Your task to perform on an android device: change timer sound Image 0: 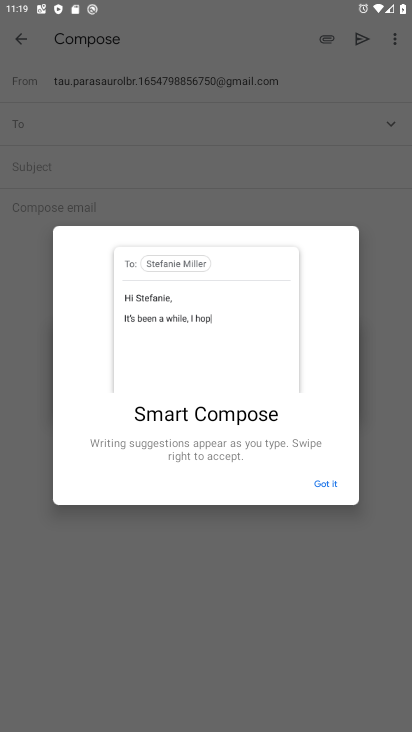
Step 0: press home button
Your task to perform on an android device: change timer sound Image 1: 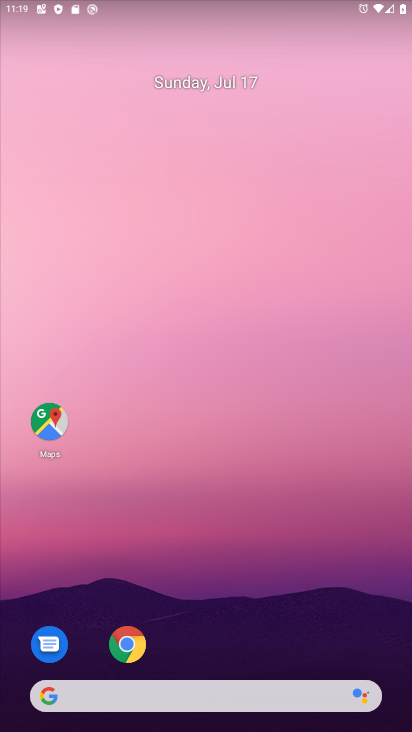
Step 1: drag from (328, 665) to (346, 87)
Your task to perform on an android device: change timer sound Image 2: 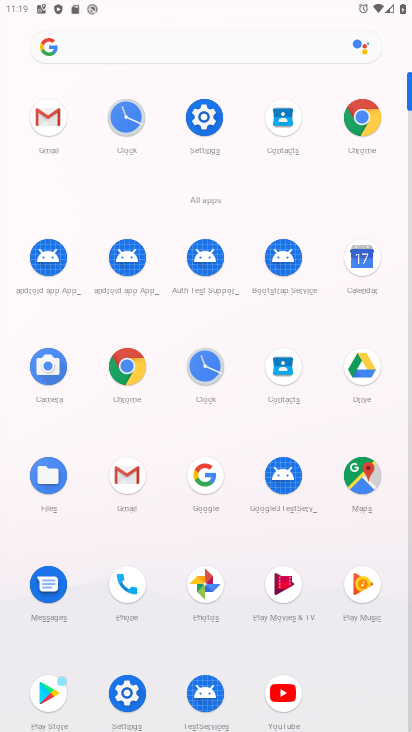
Step 2: click (197, 109)
Your task to perform on an android device: change timer sound Image 3: 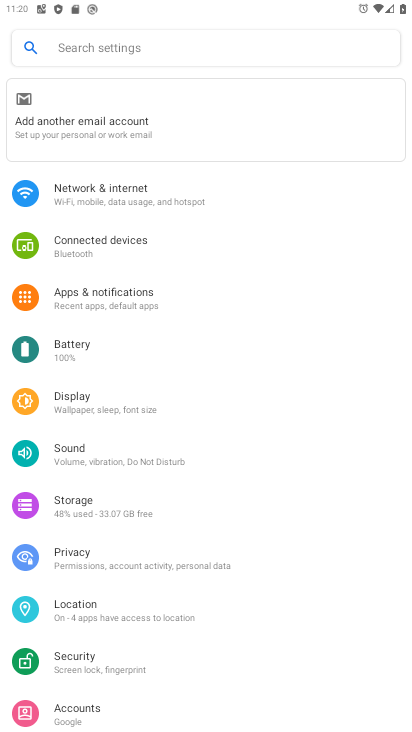
Step 3: press home button
Your task to perform on an android device: change timer sound Image 4: 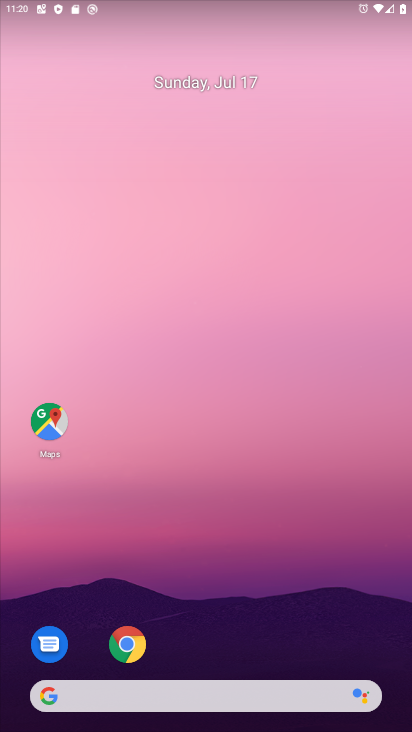
Step 4: drag from (274, 591) to (277, 106)
Your task to perform on an android device: change timer sound Image 5: 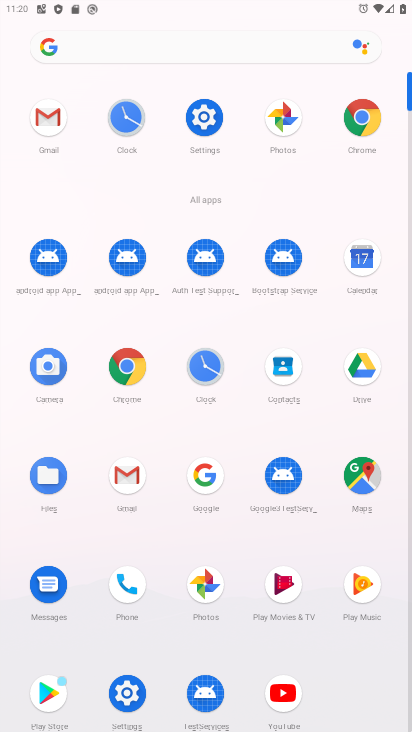
Step 5: click (197, 361)
Your task to perform on an android device: change timer sound Image 6: 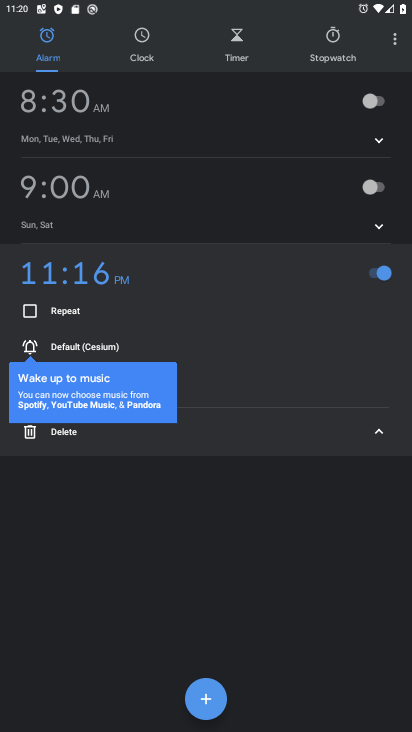
Step 6: click (397, 47)
Your task to perform on an android device: change timer sound Image 7: 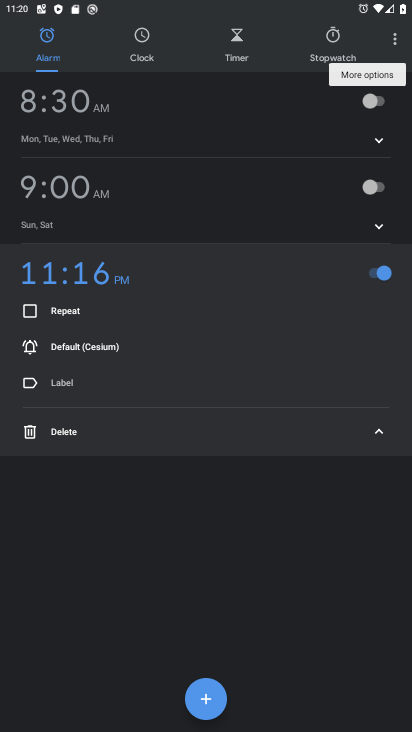
Step 7: click (397, 38)
Your task to perform on an android device: change timer sound Image 8: 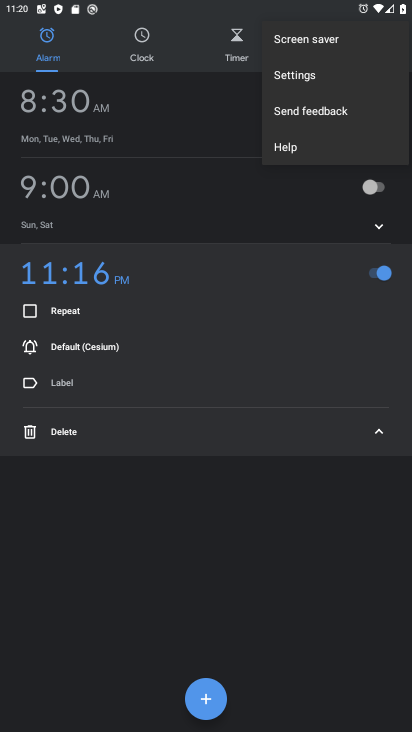
Step 8: click (288, 75)
Your task to perform on an android device: change timer sound Image 9: 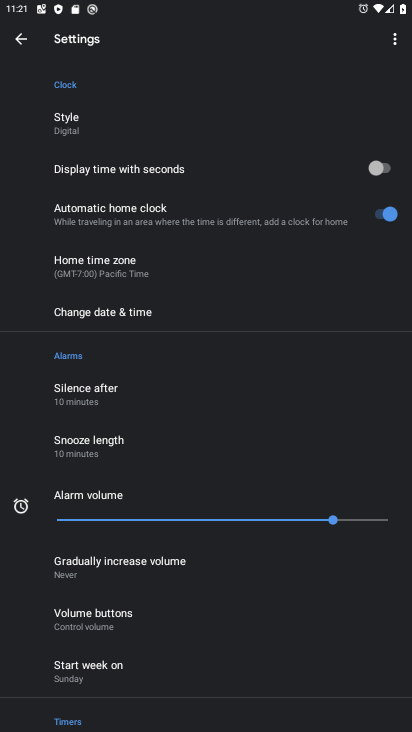
Step 9: drag from (290, 655) to (314, 323)
Your task to perform on an android device: change timer sound Image 10: 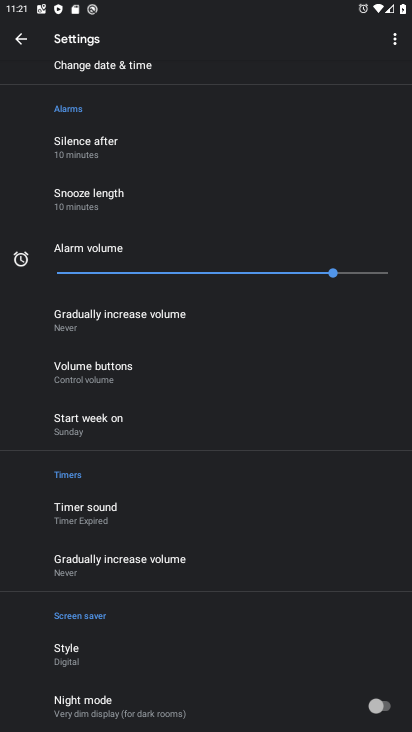
Step 10: click (89, 513)
Your task to perform on an android device: change timer sound Image 11: 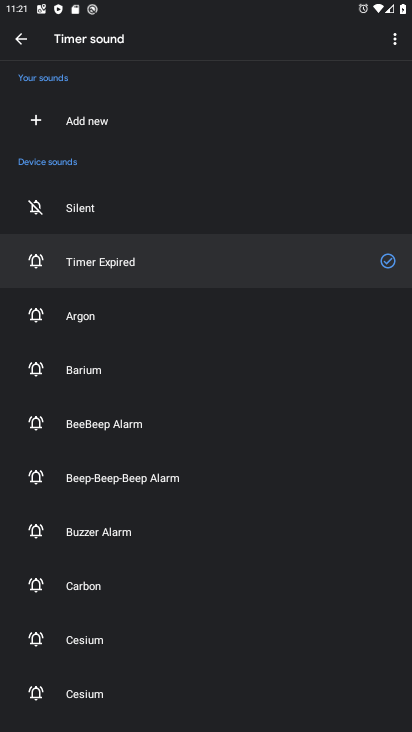
Step 11: click (201, 315)
Your task to perform on an android device: change timer sound Image 12: 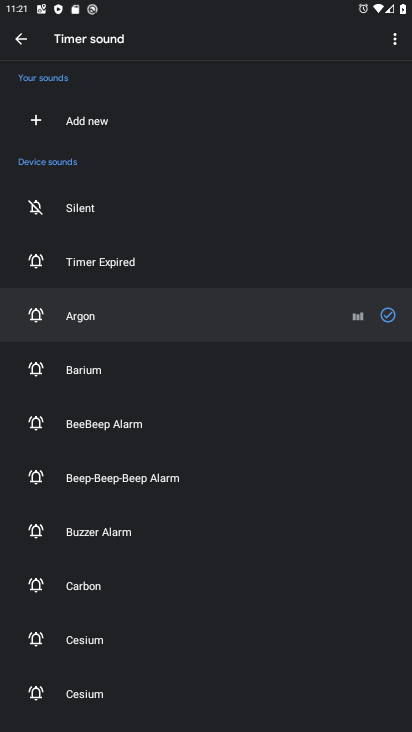
Step 12: task complete